Your task to perform on an android device: toggle notification dots Image 0: 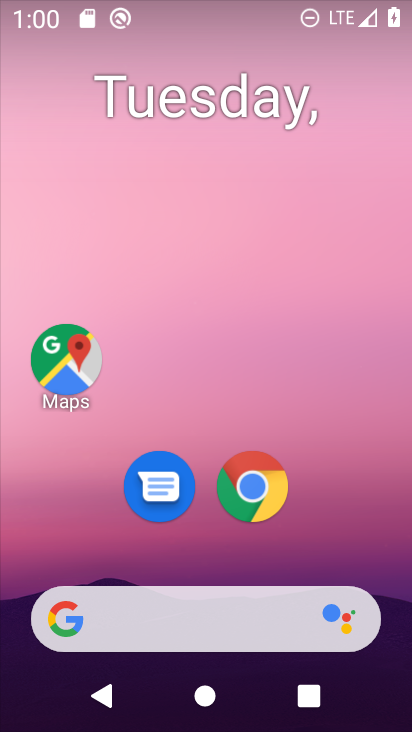
Step 0: drag from (78, 547) to (261, 196)
Your task to perform on an android device: toggle notification dots Image 1: 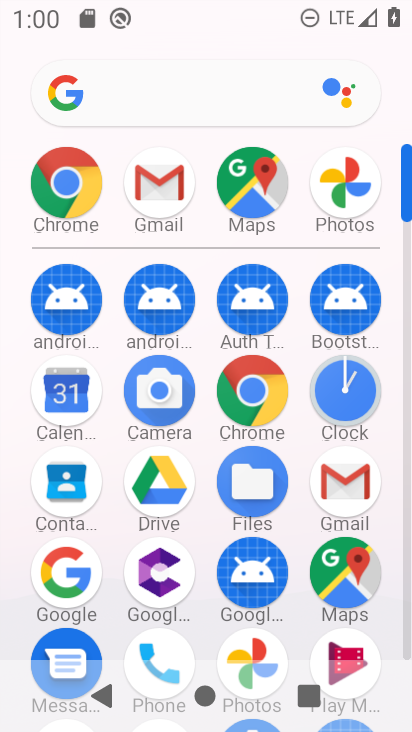
Step 1: drag from (3, 660) to (362, 123)
Your task to perform on an android device: toggle notification dots Image 2: 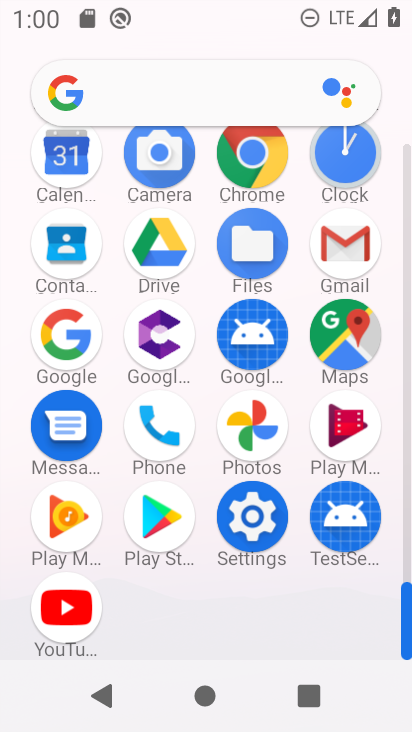
Step 2: click (252, 515)
Your task to perform on an android device: toggle notification dots Image 3: 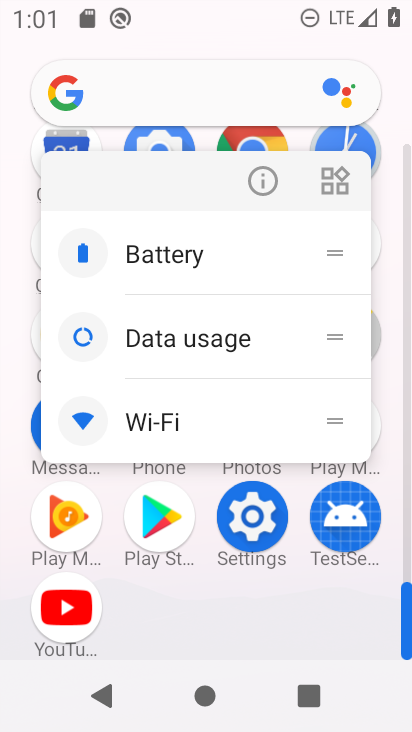
Step 3: click (263, 519)
Your task to perform on an android device: toggle notification dots Image 4: 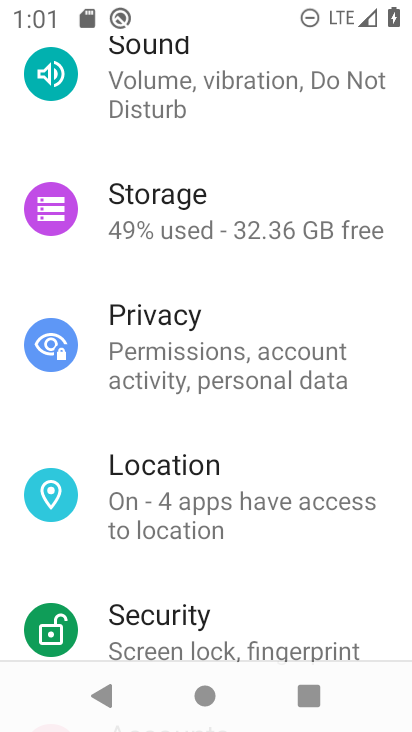
Step 4: drag from (99, 107) to (74, 657)
Your task to perform on an android device: toggle notification dots Image 5: 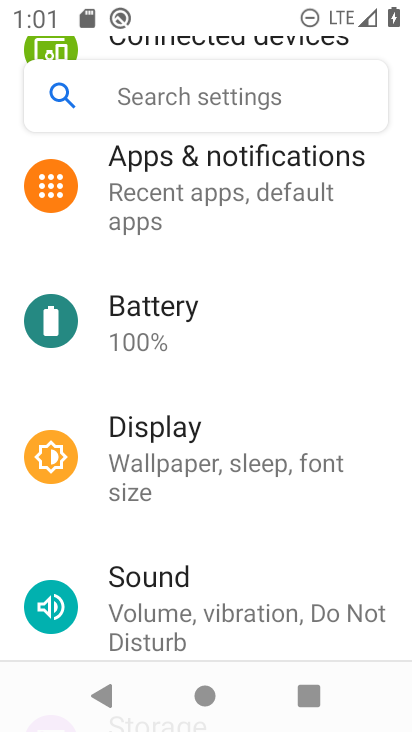
Step 5: click (118, 174)
Your task to perform on an android device: toggle notification dots Image 6: 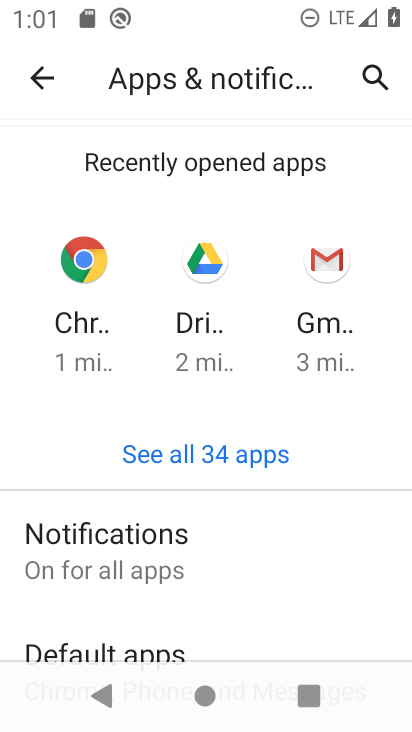
Step 6: click (38, 556)
Your task to perform on an android device: toggle notification dots Image 7: 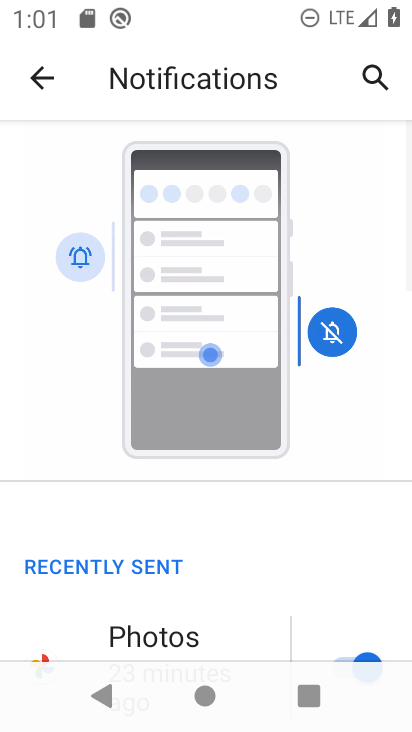
Step 7: drag from (16, 419) to (209, 87)
Your task to perform on an android device: toggle notification dots Image 8: 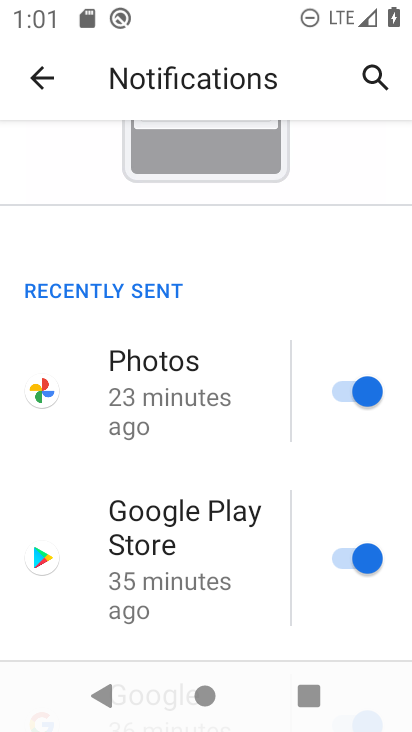
Step 8: drag from (2, 637) to (263, 246)
Your task to perform on an android device: toggle notification dots Image 9: 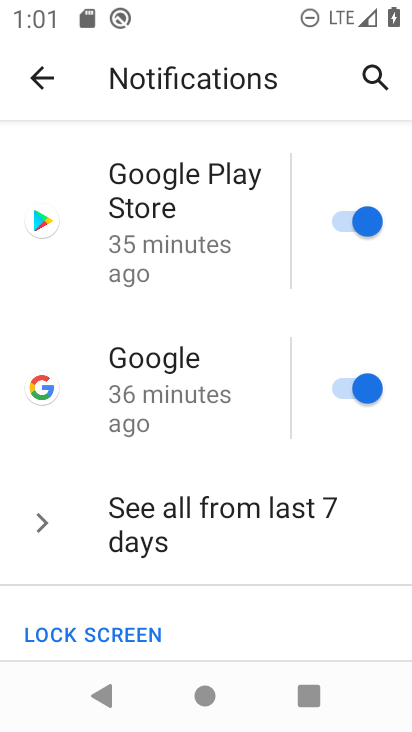
Step 9: drag from (1, 601) to (327, 109)
Your task to perform on an android device: toggle notification dots Image 10: 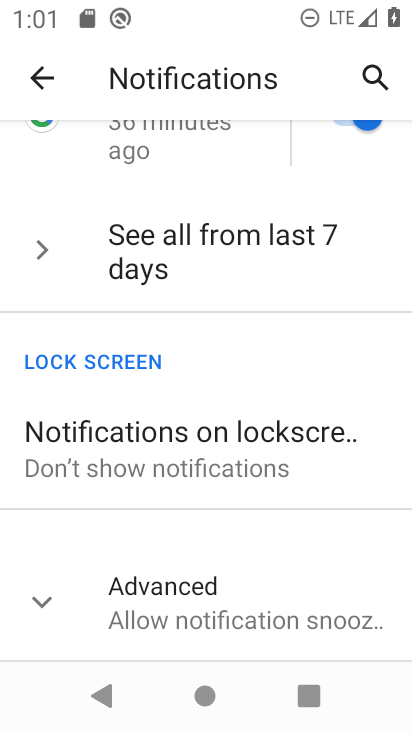
Step 10: click (173, 611)
Your task to perform on an android device: toggle notification dots Image 11: 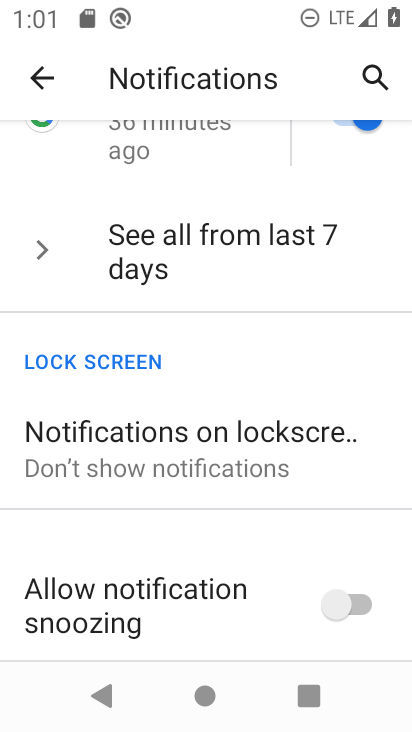
Step 11: drag from (22, 470) to (327, 124)
Your task to perform on an android device: toggle notification dots Image 12: 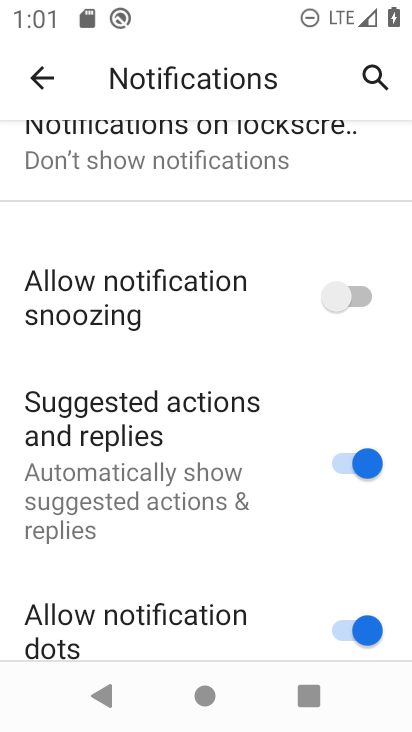
Step 12: drag from (0, 663) to (284, 231)
Your task to perform on an android device: toggle notification dots Image 13: 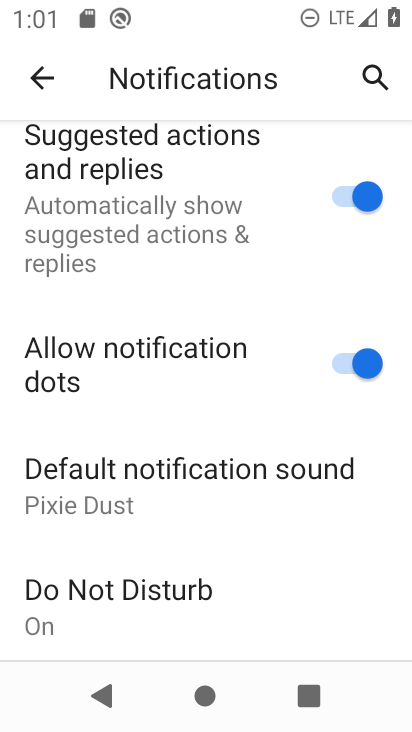
Step 13: click (362, 359)
Your task to perform on an android device: toggle notification dots Image 14: 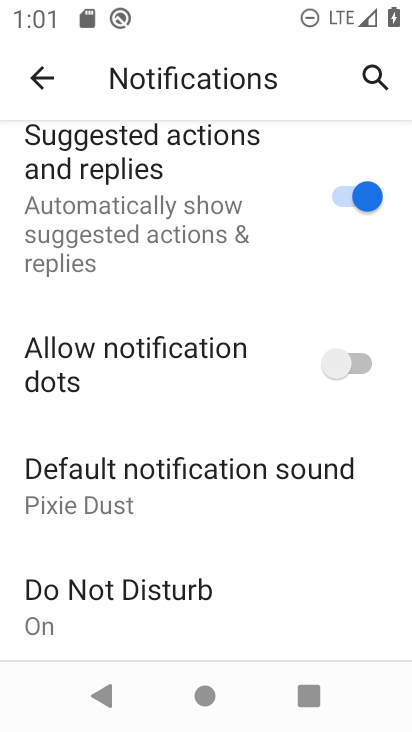
Step 14: task complete